Your task to perform on an android device: Open notification settings Image 0: 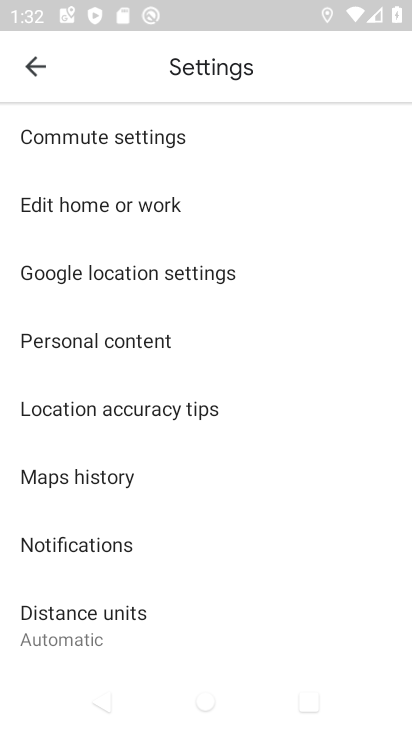
Step 0: press home button
Your task to perform on an android device: Open notification settings Image 1: 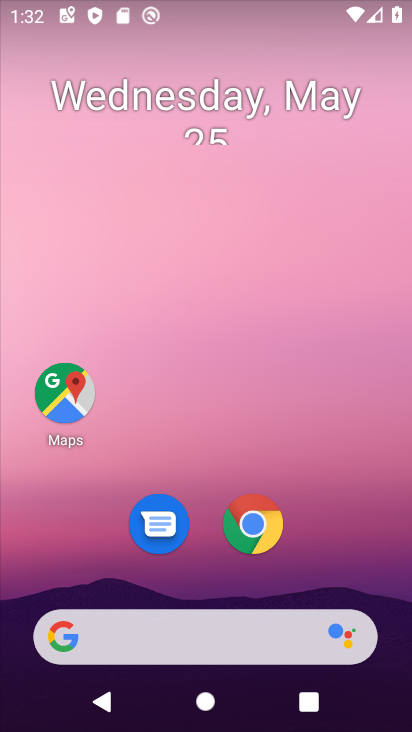
Step 1: drag from (197, 439) to (209, 0)
Your task to perform on an android device: Open notification settings Image 2: 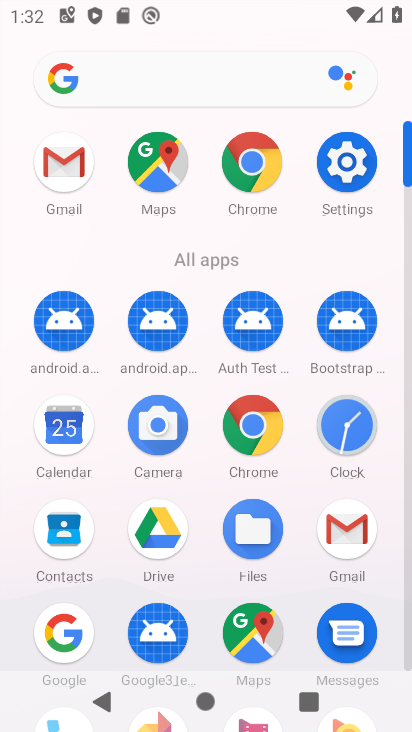
Step 2: click (342, 168)
Your task to perform on an android device: Open notification settings Image 3: 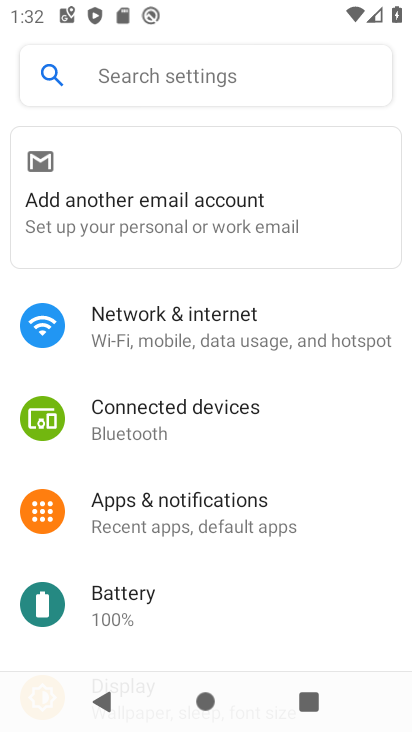
Step 3: click (206, 509)
Your task to perform on an android device: Open notification settings Image 4: 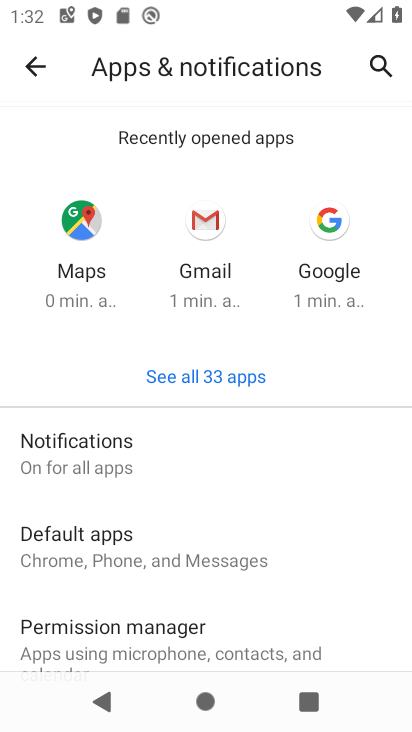
Step 4: click (208, 459)
Your task to perform on an android device: Open notification settings Image 5: 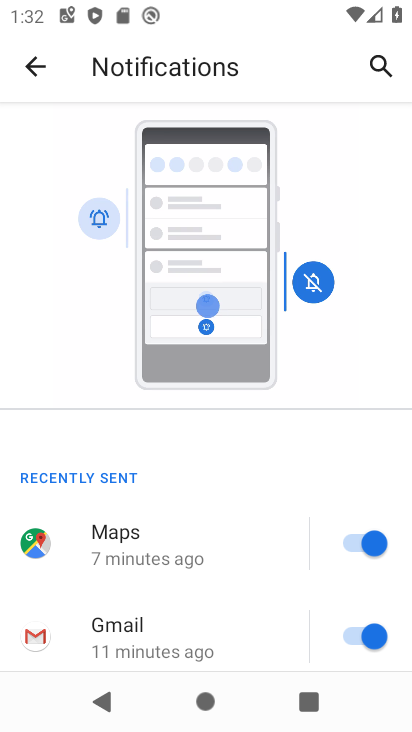
Step 5: task complete